Your task to perform on an android device: Go to battery settings Image 0: 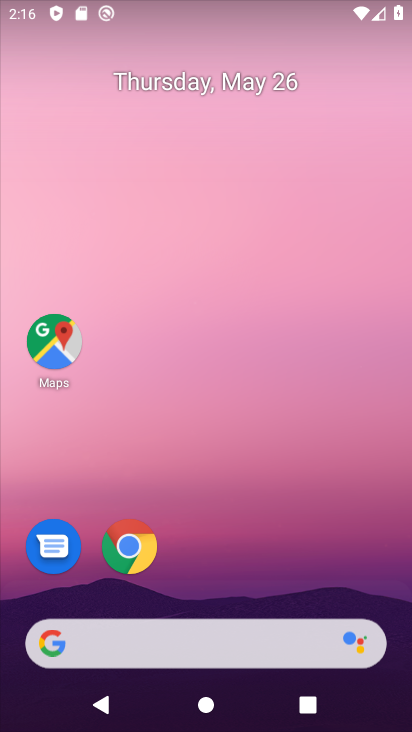
Step 0: drag from (398, 674) to (410, 279)
Your task to perform on an android device: Go to battery settings Image 1: 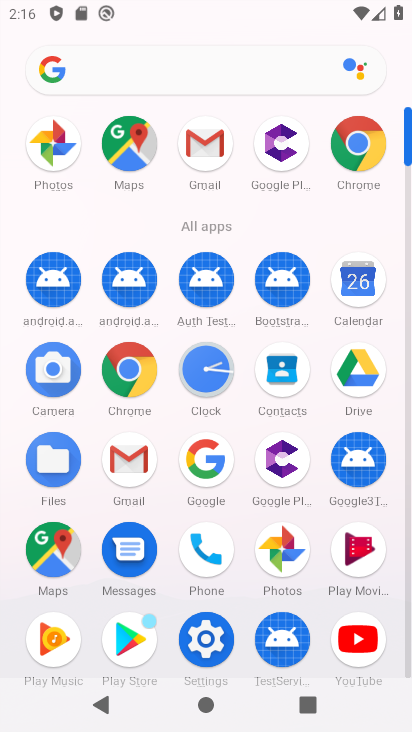
Step 1: click (214, 629)
Your task to perform on an android device: Go to battery settings Image 2: 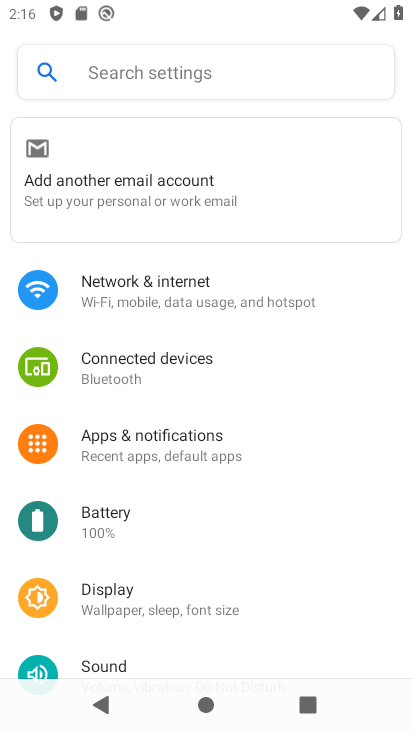
Step 2: click (105, 527)
Your task to perform on an android device: Go to battery settings Image 3: 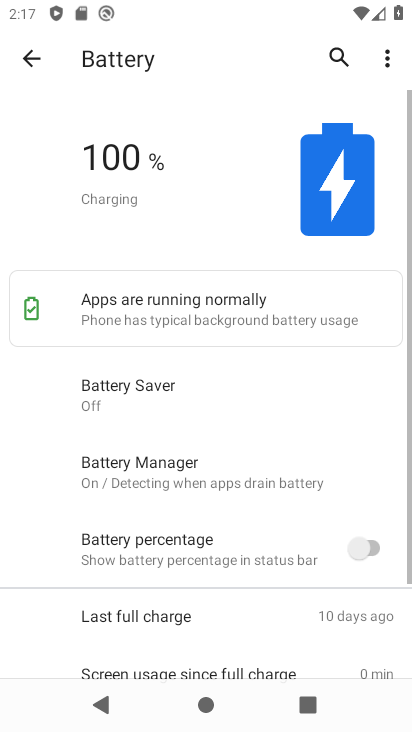
Step 3: task complete